Your task to perform on an android device: Open privacy settings Image 0: 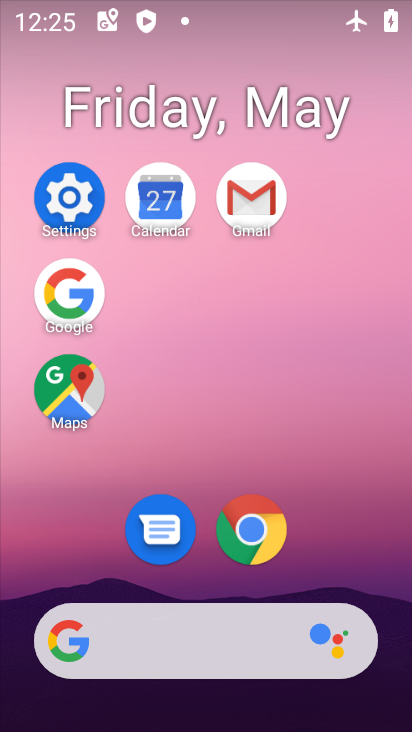
Step 0: click (110, 196)
Your task to perform on an android device: Open privacy settings Image 1: 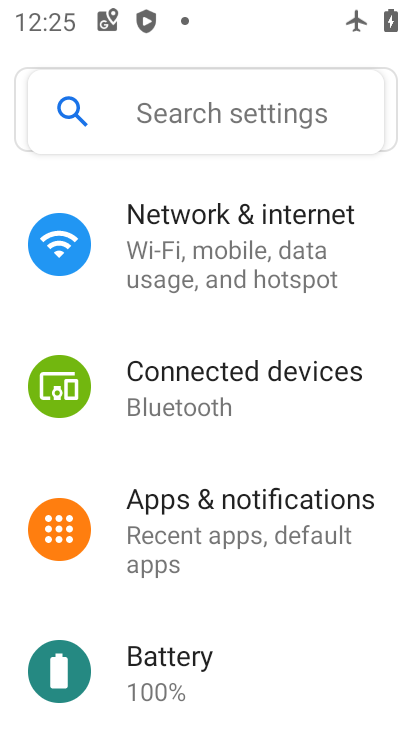
Step 1: drag from (314, 664) to (237, 223)
Your task to perform on an android device: Open privacy settings Image 2: 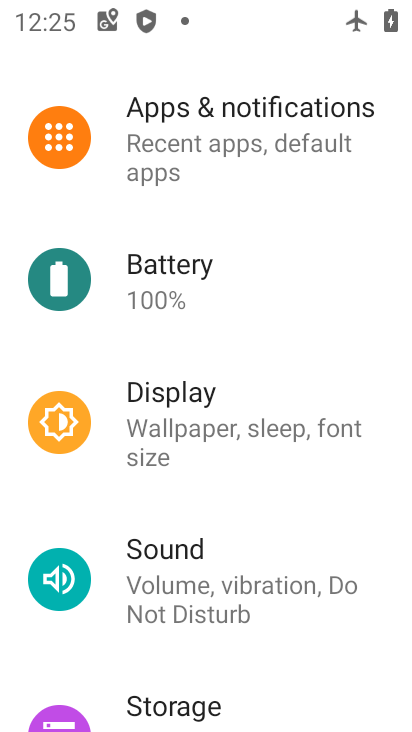
Step 2: drag from (254, 578) to (238, 173)
Your task to perform on an android device: Open privacy settings Image 3: 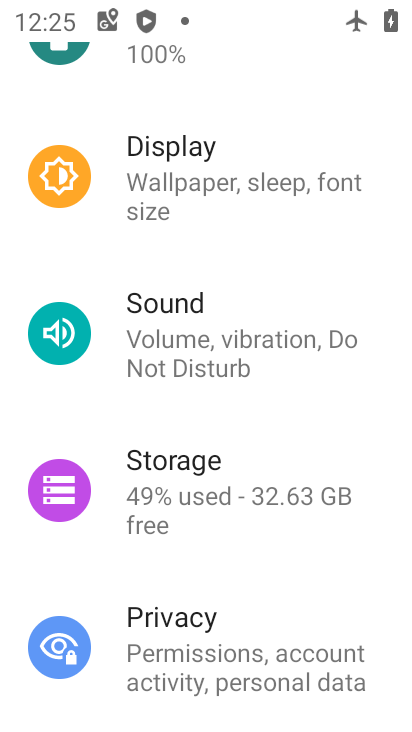
Step 3: click (261, 657)
Your task to perform on an android device: Open privacy settings Image 4: 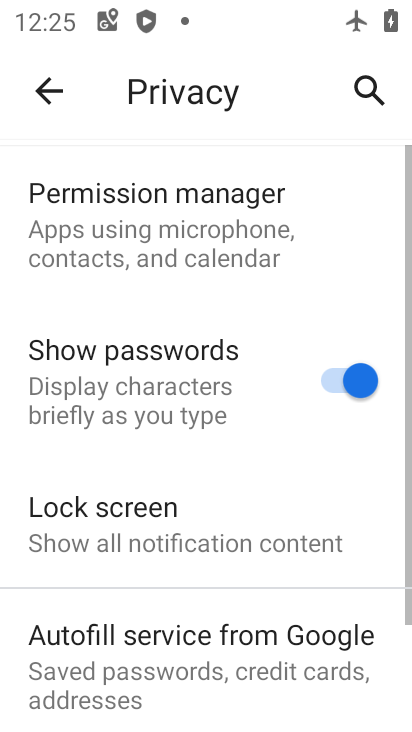
Step 4: task complete